Your task to perform on an android device: check google app version Image 0: 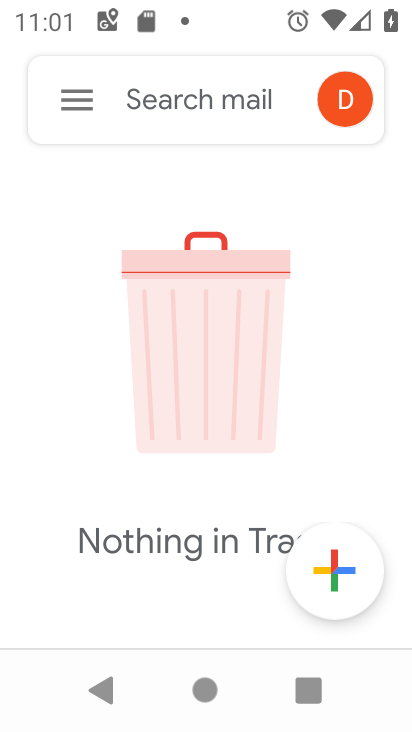
Step 0: press home button
Your task to perform on an android device: check google app version Image 1: 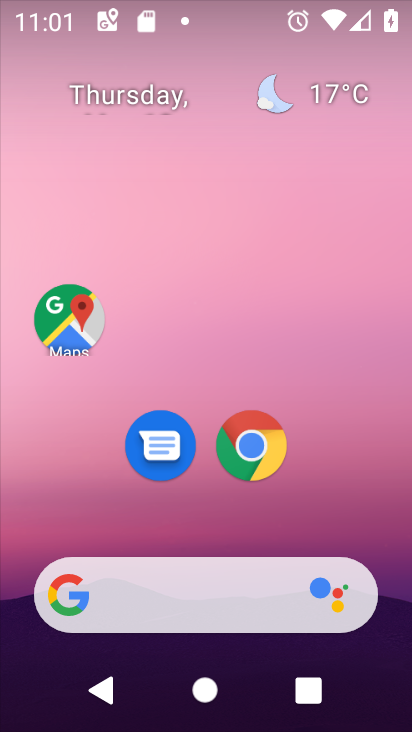
Step 1: drag from (200, 473) to (247, 179)
Your task to perform on an android device: check google app version Image 2: 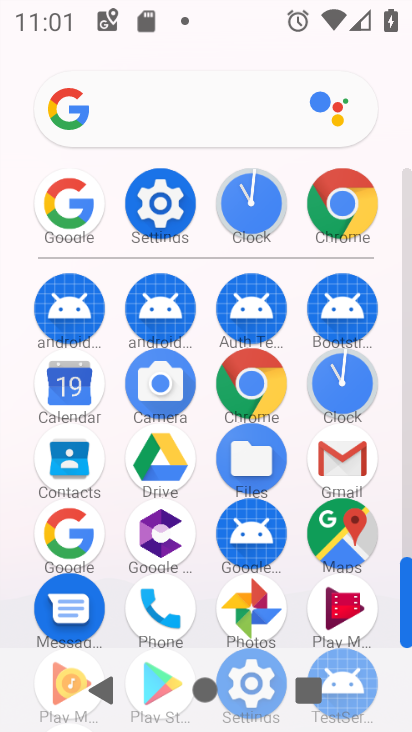
Step 2: click (64, 547)
Your task to perform on an android device: check google app version Image 3: 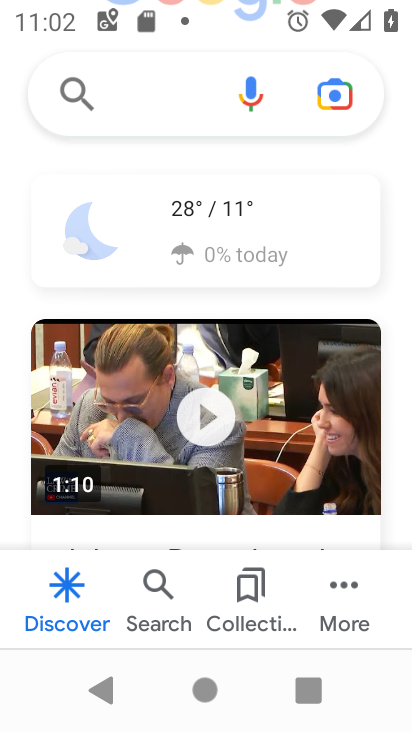
Step 3: click (325, 612)
Your task to perform on an android device: check google app version Image 4: 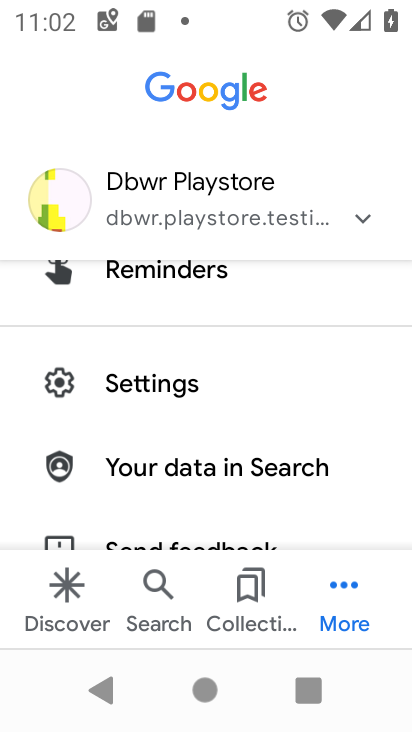
Step 4: drag from (254, 521) to (220, 170)
Your task to perform on an android device: check google app version Image 5: 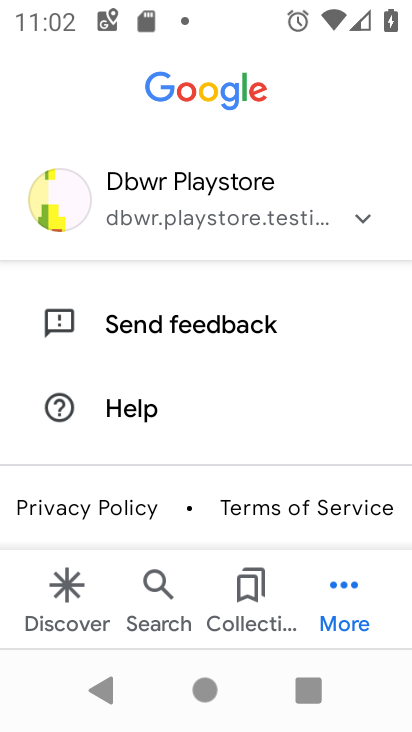
Step 5: drag from (227, 340) to (285, 537)
Your task to perform on an android device: check google app version Image 6: 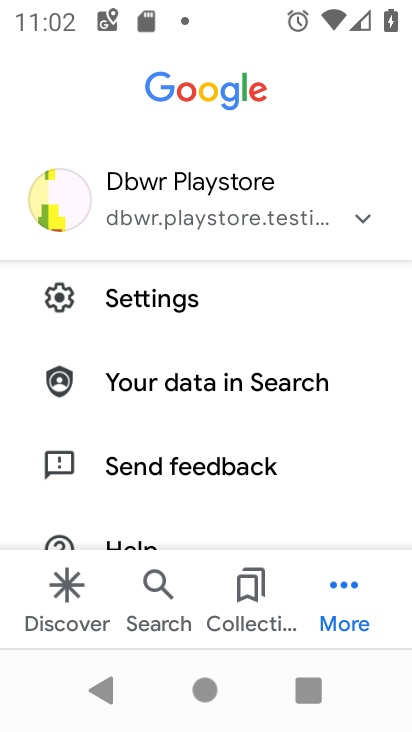
Step 6: click (204, 311)
Your task to perform on an android device: check google app version Image 7: 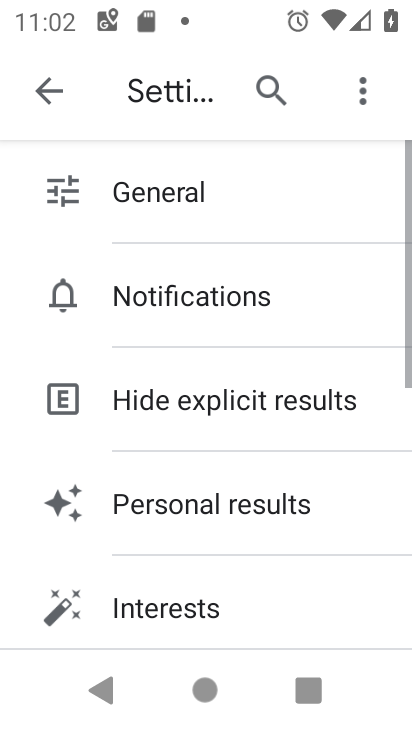
Step 7: drag from (186, 605) to (224, 214)
Your task to perform on an android device: check google app version Image 8: 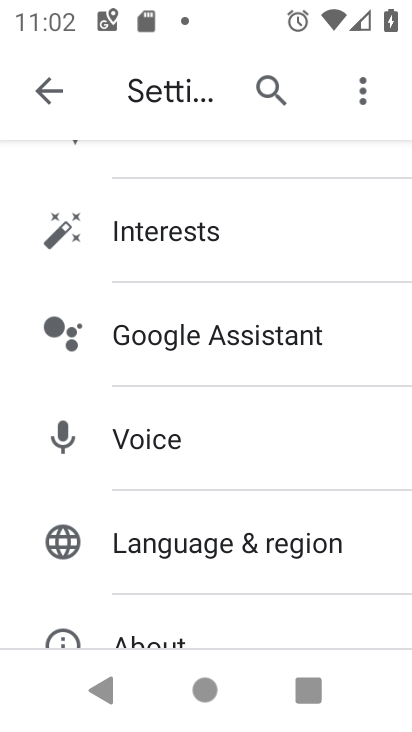
Step 8: drag from (190, 571) to (211, 247)
Your task to perform on an android device: check google app version Image 9: 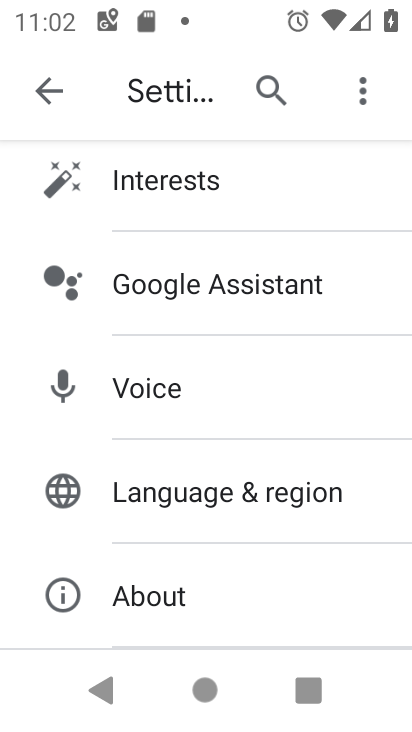
Step 9: click (178, 619)
Your task to perform on an android device: check google app version Image 10: 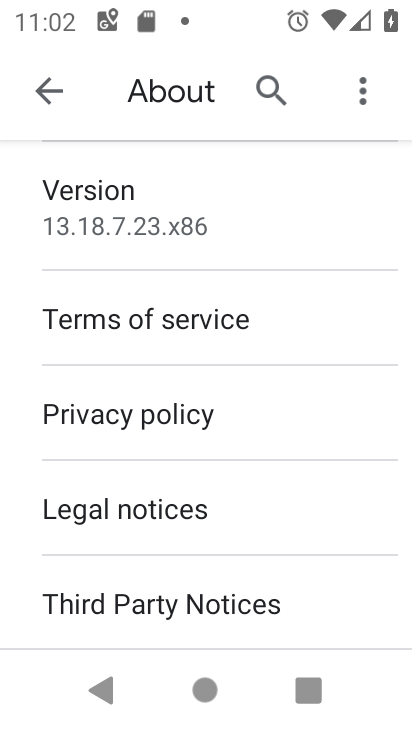
Step 10: task complete